Your task to perform on an android device: turn on the 12-hour format for clock Image 0: 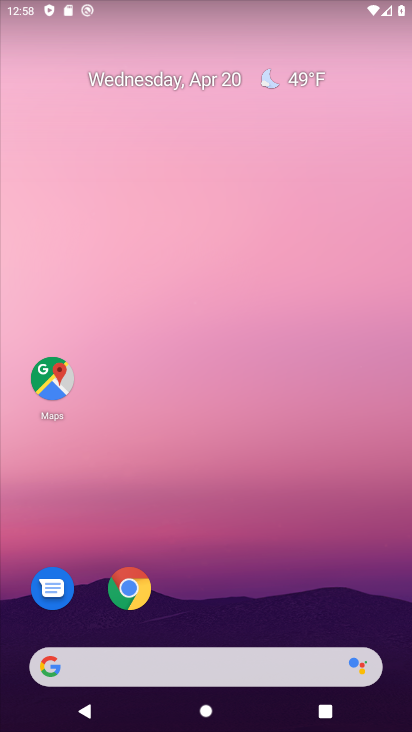
Step 0: drag from (195, 539) to (250, 146)
Your task to perform on an android device: turn on the 12-hour format for clock Image 1: 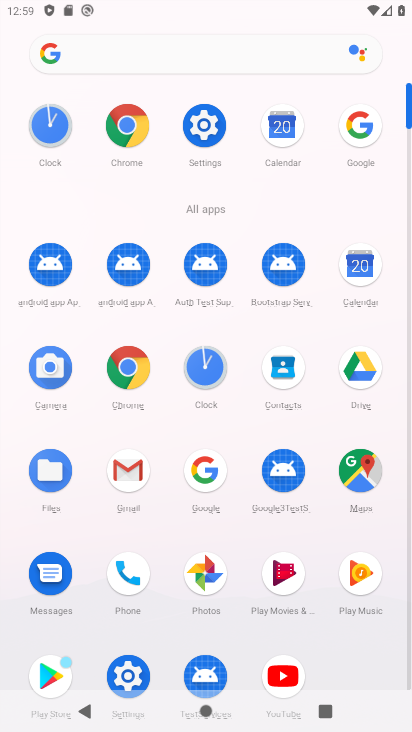
Step 1: click (210, 365)
Your task to perform on an android device: turn on the 12-hour format for clock Image 2: 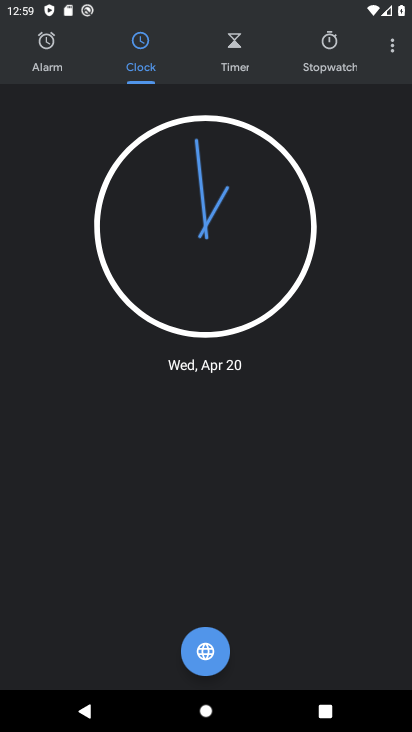
Step 2: click (395, 44)
Your task to perform on an android device: turn on the 12-hour format for clock Image 3: 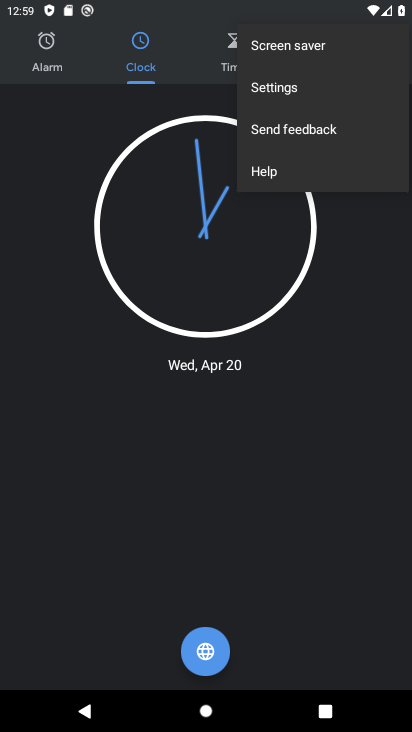
Step 3: click (291, 90)
Your task to perform on an android device: turn on the 12-hour format for clock Image 4: 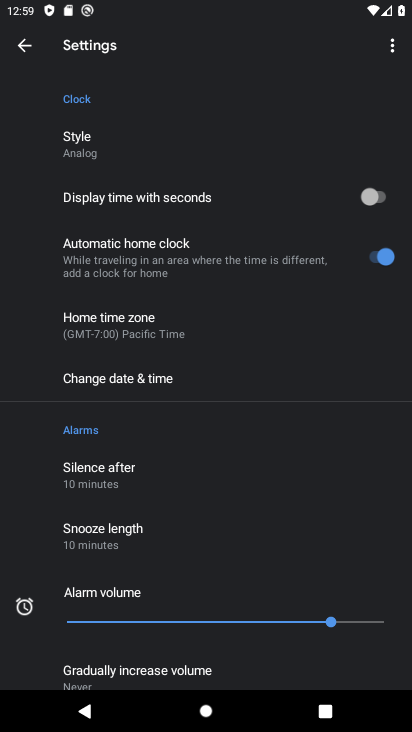
Step 4: drag from (180, 585) to (293, 85)
Your task to perform on an android device: turn on the 12-hour format for clock Image 5: 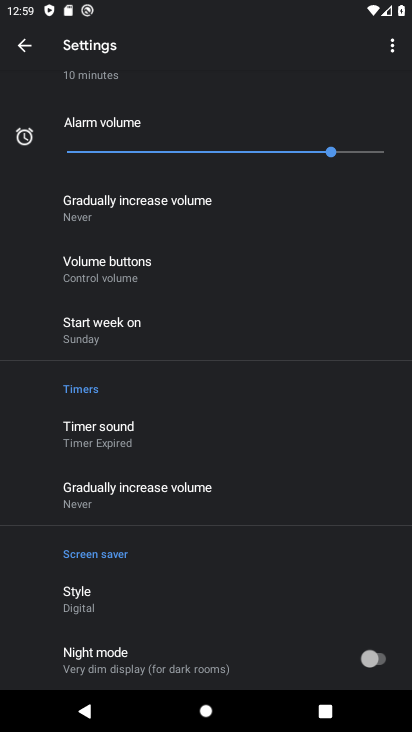
Step 5: drag from (209, 234) to (167, 542)
Your task to perform on an android device: turn on the 12-hour format for clock Image 6: 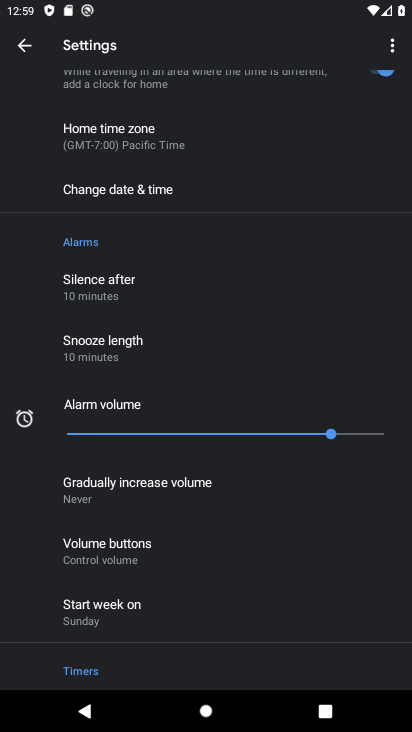
Step 6: click (141, 190)
Your task to perform on an android device: turn on the 12-hour format for clock Image 7: 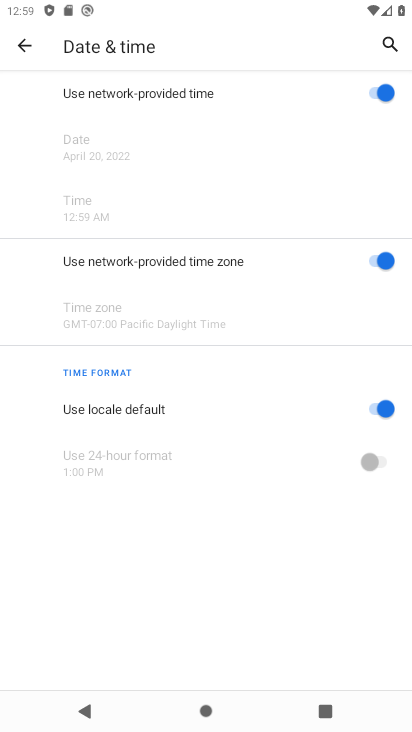
Step 7: task complete